Your task to perform on an android device: turn on improve location accuracy Image 0: 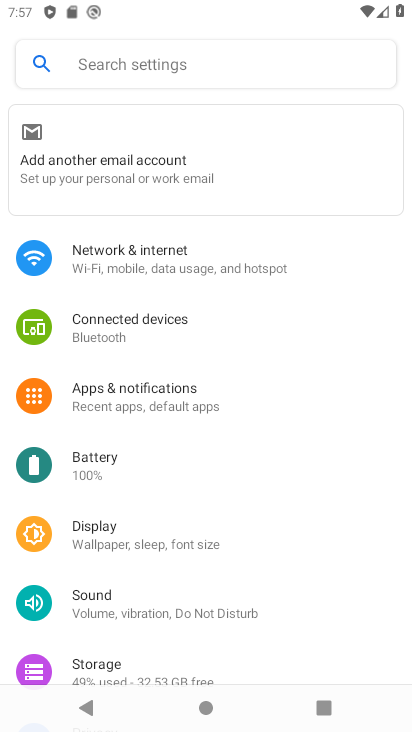
Step 0: press home button
Your task to perform on an android device: turn on improve location accuracy Image 1: 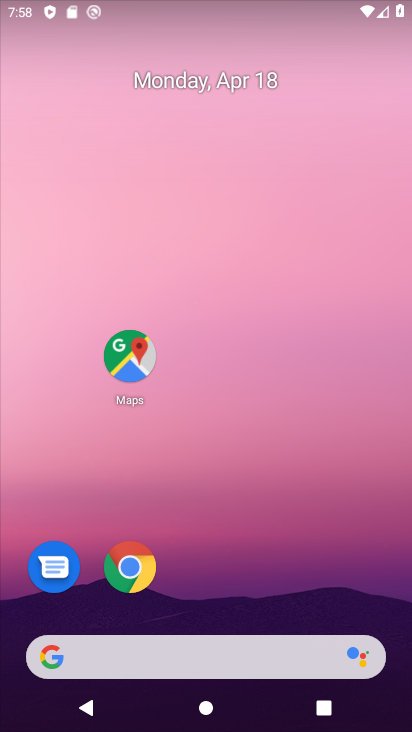
Step 1: drag from (221, 669) to (213, 130)
Your task to perform on an android device: turn on improve location accuracy Image 2: 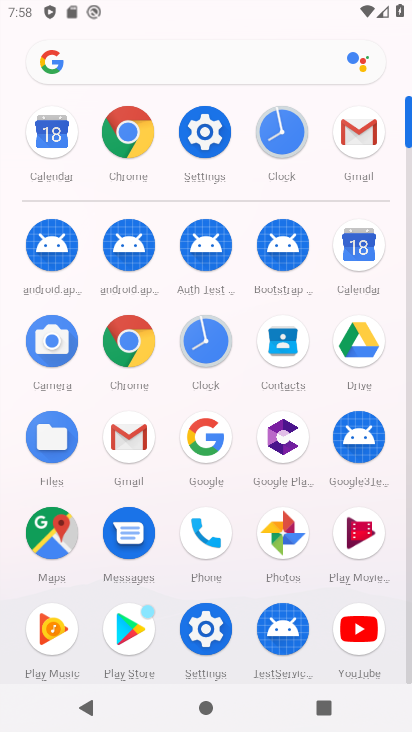
Step 2: click (214, 605)
Your task to perform on an android device: turn on improve location accuracy Image 3: 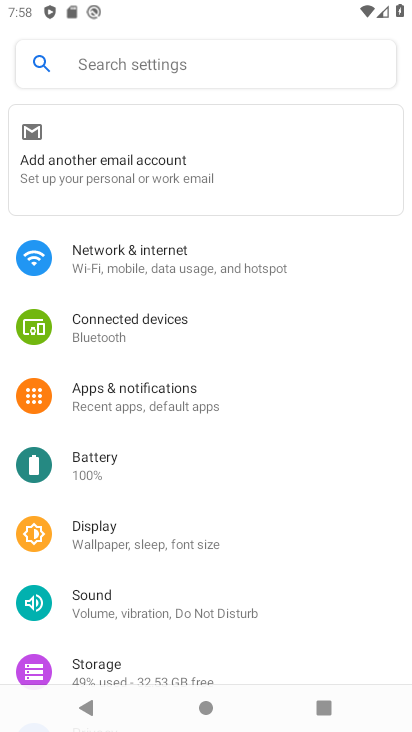
Step 3: click (184, 65)
Your task to perform on an android device: turn on improve location accuracy Image 4: 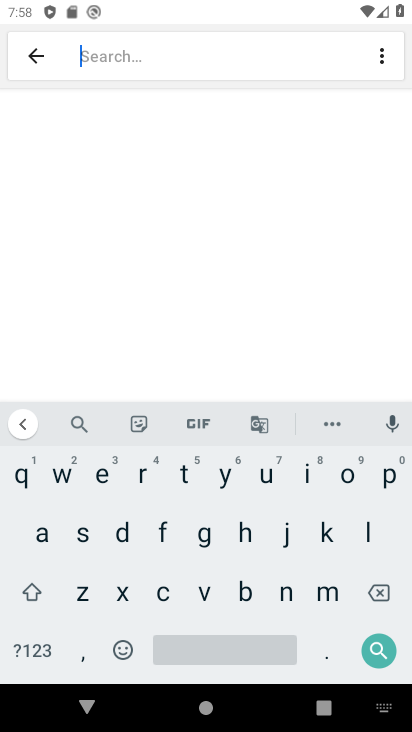
Step 4: click (356, 525)
Your task to perform on an android device: turn on improve location accuracy Image 5: 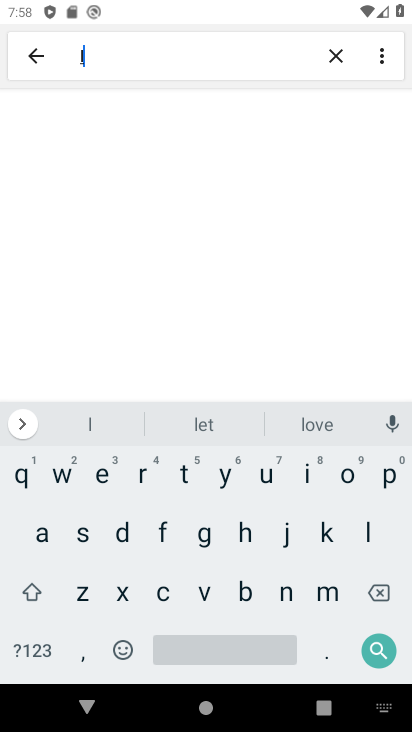
Step 5: click (350, 467)
Your task to perform on an android device: turn on improve location accuracy Image 6: 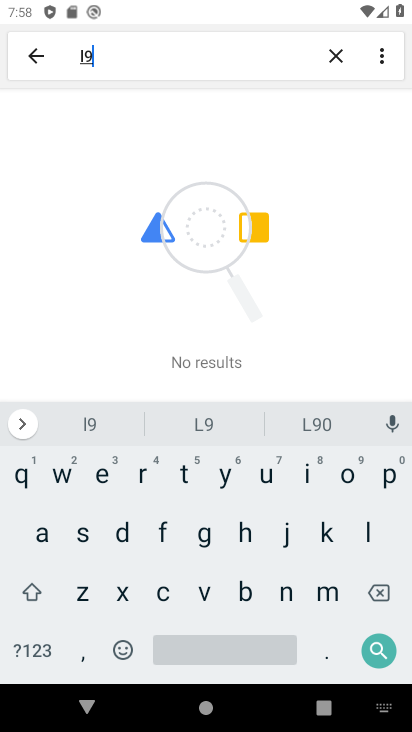
Step 6: click (374, 591)
Your task to perform on an android device: turn on improve location accuracy Image 7: 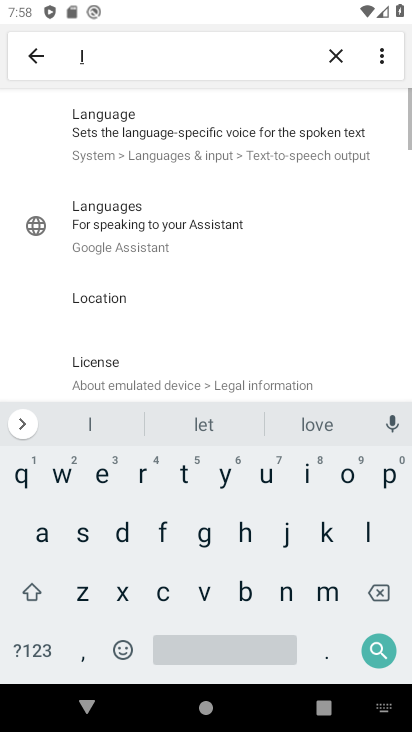
Step 7: click (346, 478)
Your task to perform on an android device: turn on improve location accuracy Image 8: 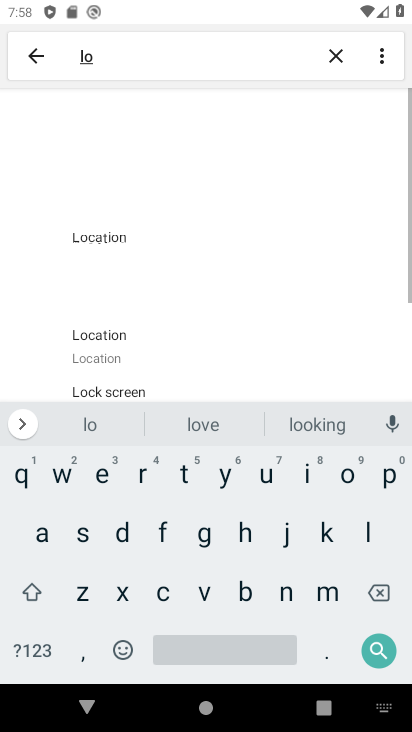
Step 8: click (153, 592)
Your task to perform on an android device: turn on improve location accuracy Image 9: 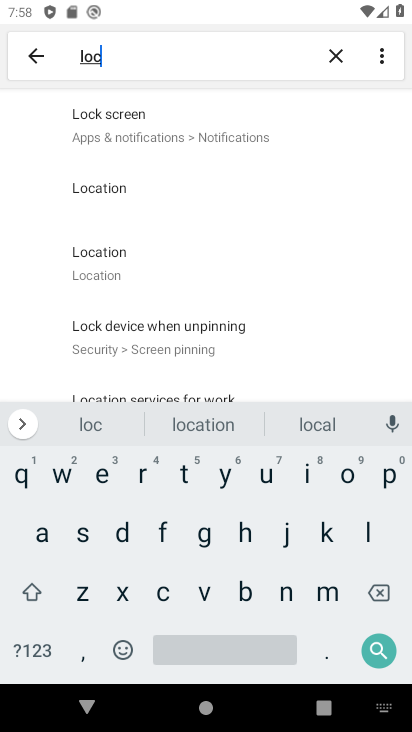
Step 9: click (88, 259)
Your task to perform on an android device: turn on improve location accuracy Image 10: 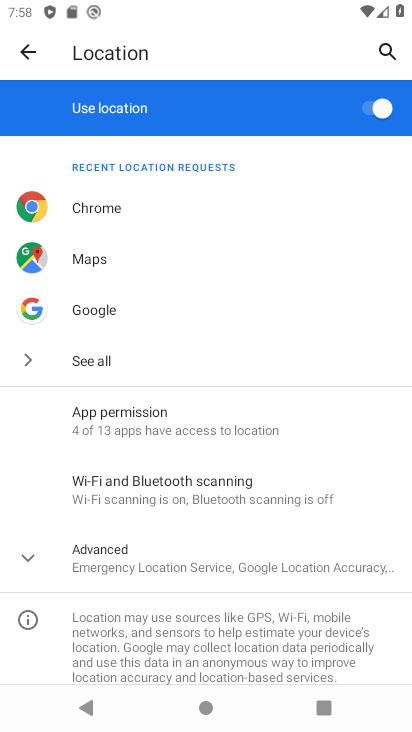
Step 10: click (61, 567)
Your task to perform on an android device: turn on improve location accuracy Image 11: 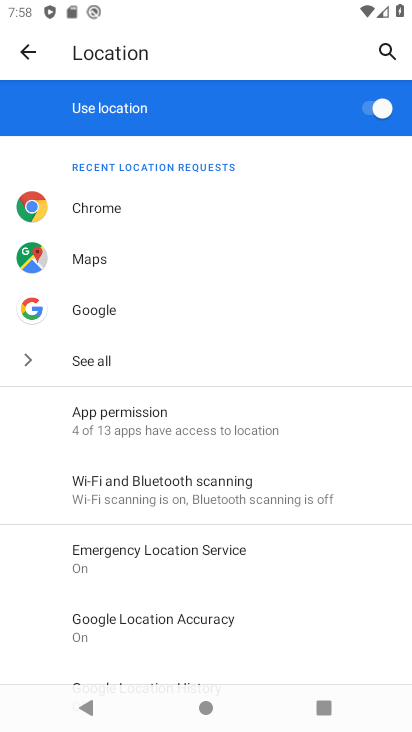
Step 11: click (172, 606)
Your task to perform on an android device: turn on improve location accuracy Image 12: 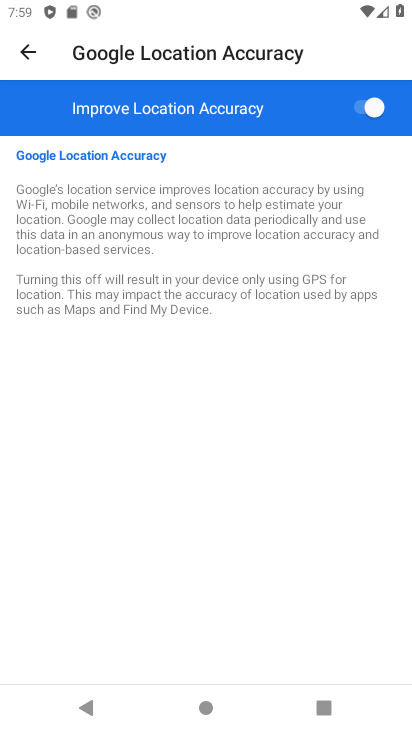
Step 12: click (360, 117)
Your task to perform on an android device: turn on improve location accuracy Image 13: 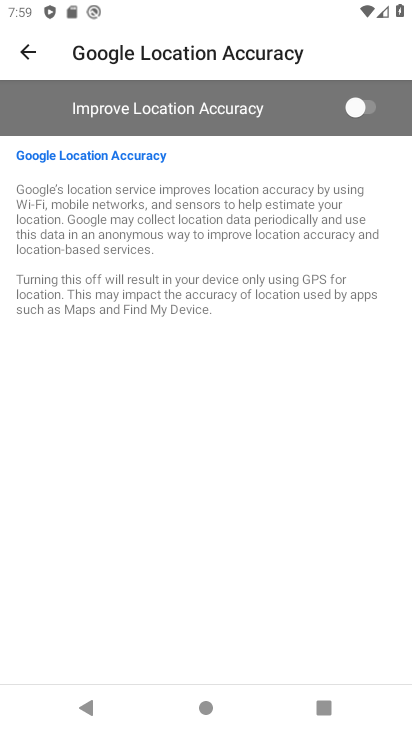
Step 13: click (361, 117)
Your task to perform on an android device: turn on improve location accuracy Image 14: 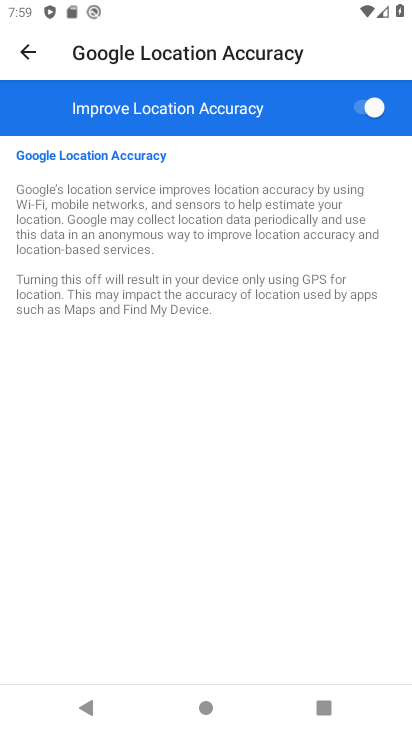
Step 14: task complete